Your task to perform on an android device: Search for sushi restaurants on Maps Image 0: 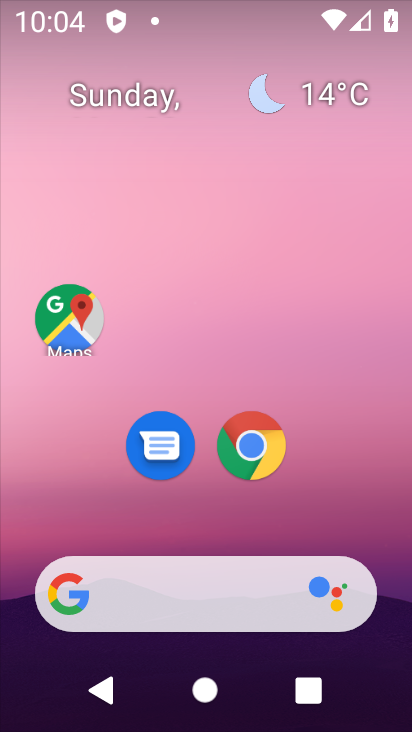
Step 0: drag from (230, 467) to (268, 3)
Your task to perform on an android device: Search for sushi restaurants on Maps Image 1: 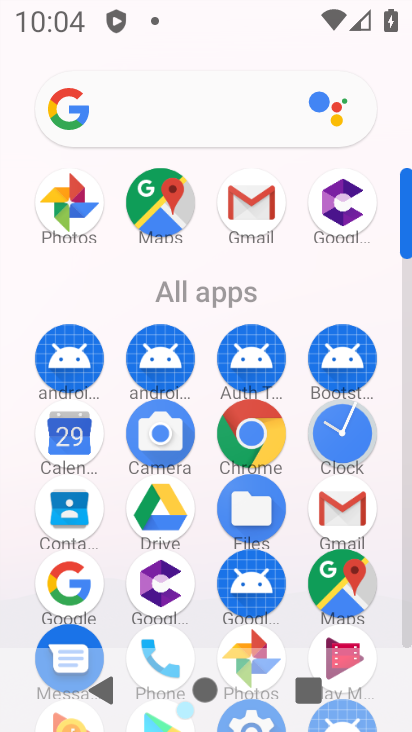
Step 1: click (324, 580)
Your task to perform on an android device: Search for sushi restaurants on Maps Image 2: 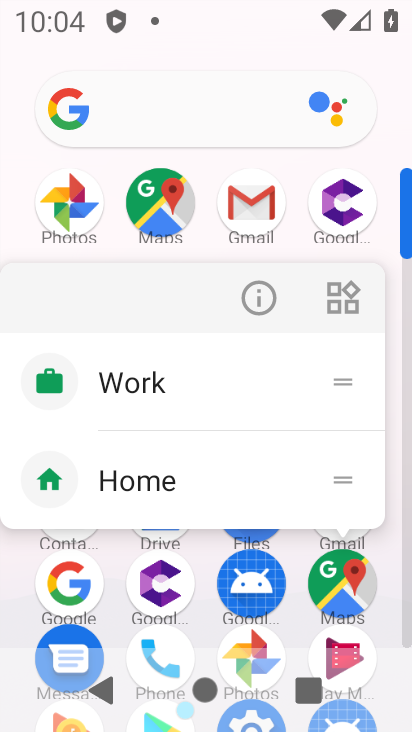
Step 2: click (260, 280)
Your task to perform on an android device: Search for sushi restaurants on Maps Image 3: 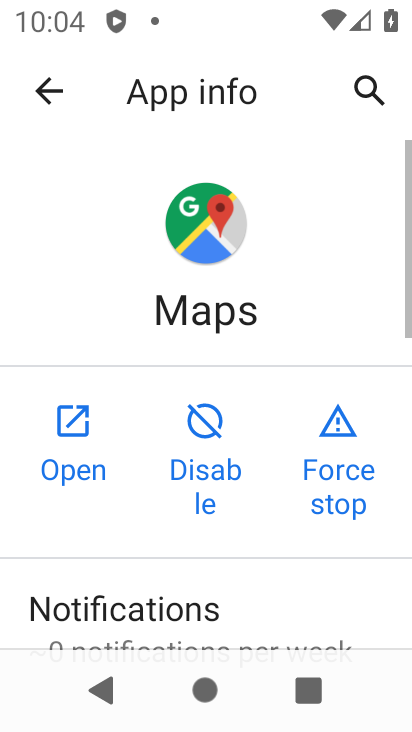
Step 3: click (68, 443)
Your task to perform on an android device: Search for sushi restaurants on Maps Image 4: 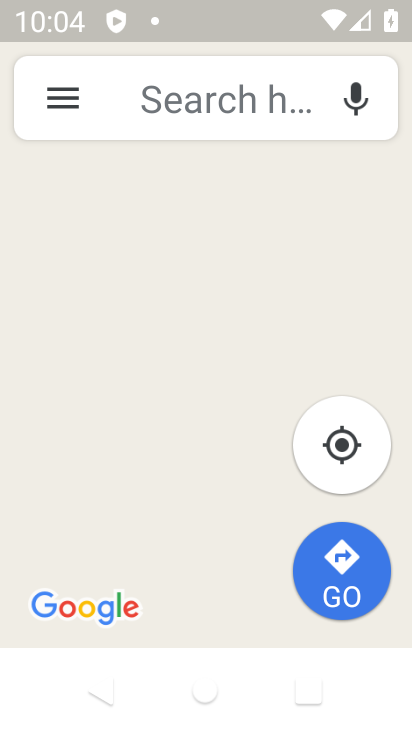
Step 4: drag from (237, 568) to (278, 73)
Your task to perform on an android device: Search for sushi restaurants on Maps Image 5: 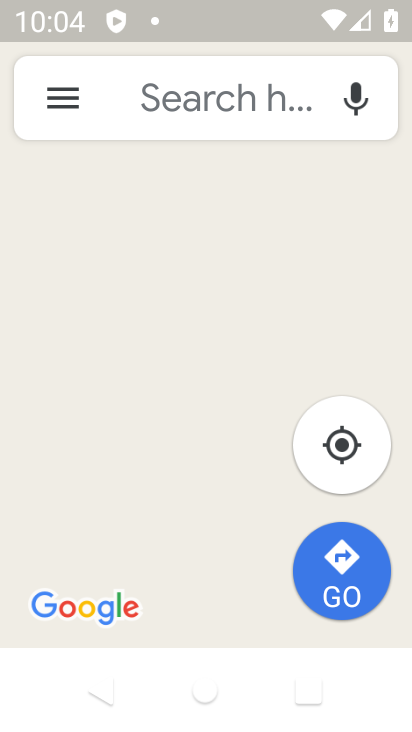
Step 5: drag from (205, 523) to (312, 126)
Your task to perform on an android device: Search for sushi restaurants on Maps Image 6: 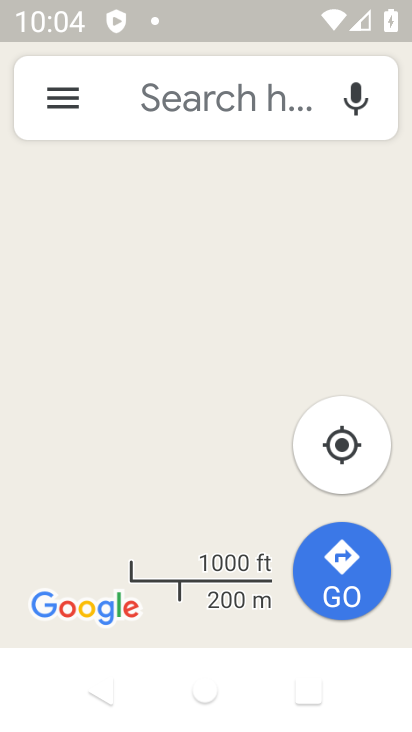
Step 6: drag from (235, 202) to (180, 578)
Your task to perform on an android device: Search for sushi restaurants on Maps Image 7: 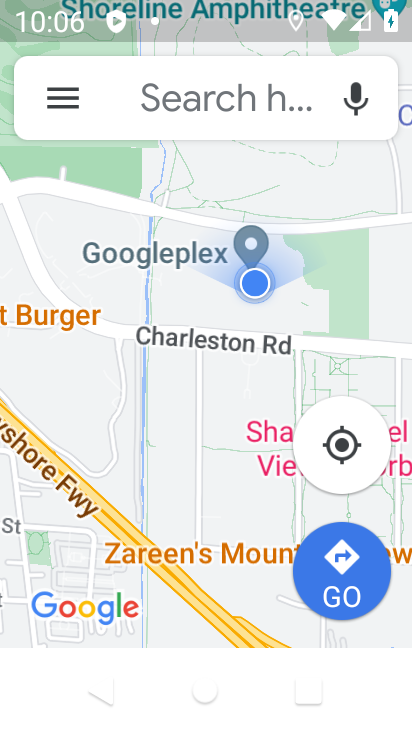
Step 7: click (185, 130)
Your task to perform on an android device: Search for sushi restaurants on Maps Image 8: 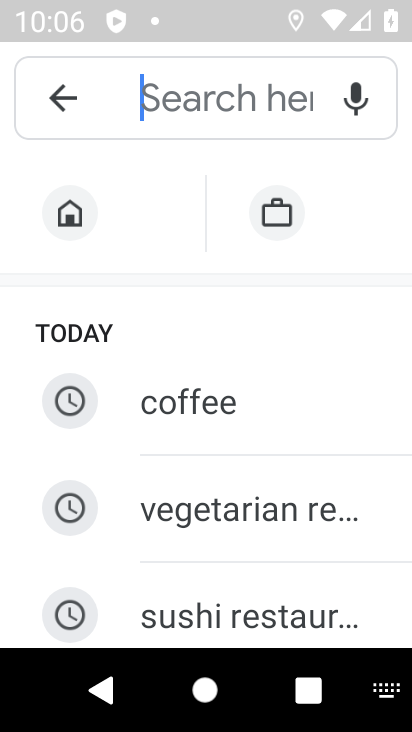
Step 8: drag from (229, 591) to (285, 295)
Your task to perform on an android device: Search for sushi restaurants on Maps Image 9: 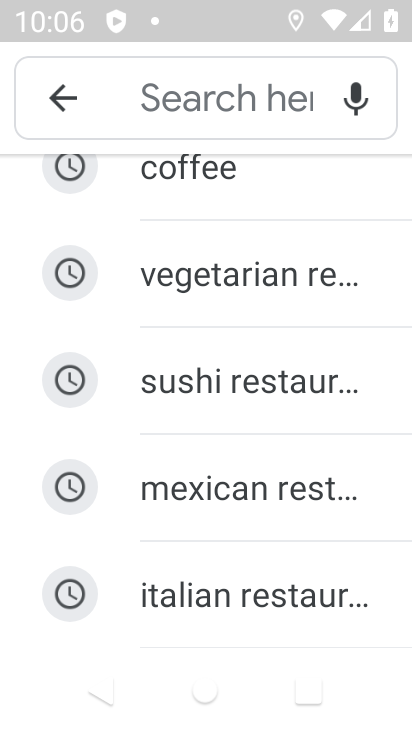
Step 9: click (199, 391)
Your task to perform on an android device: Search for sushi restaurants on Maps Image 10: 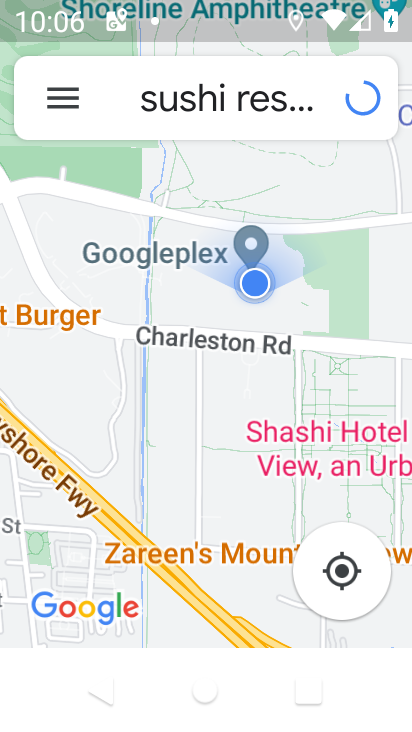
Step 10: task complete